Your task to perform on an android device: Open wifi settings Image 0: 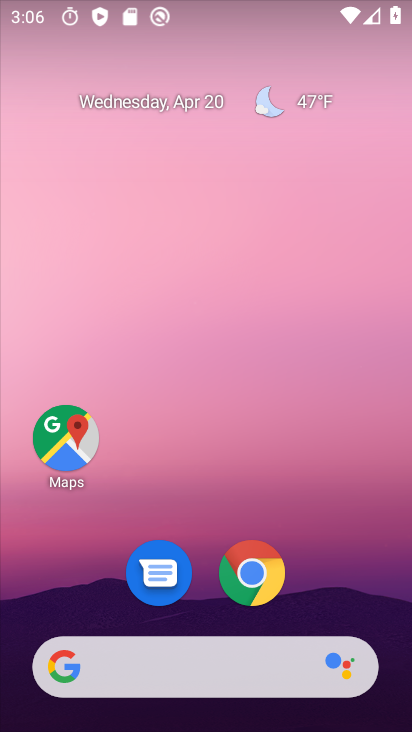
Step 0: drag from (204, 725) to (212, 153)
Your task to perform on an android device: Open wifi settings Image 1: 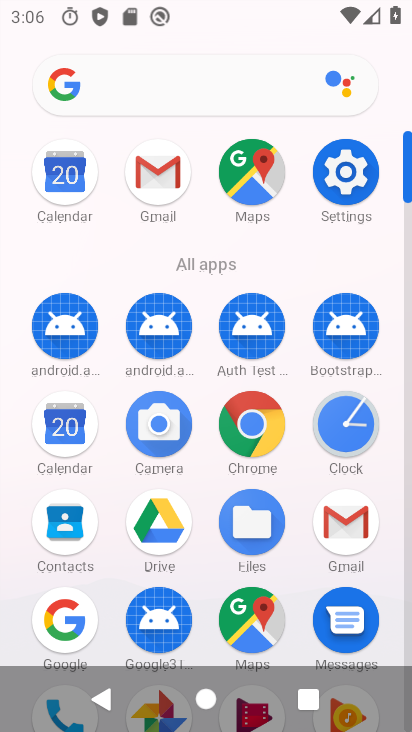
Step 1: click (348, 166)
Your task to perform on an android device: Open wifi settings Image 2: 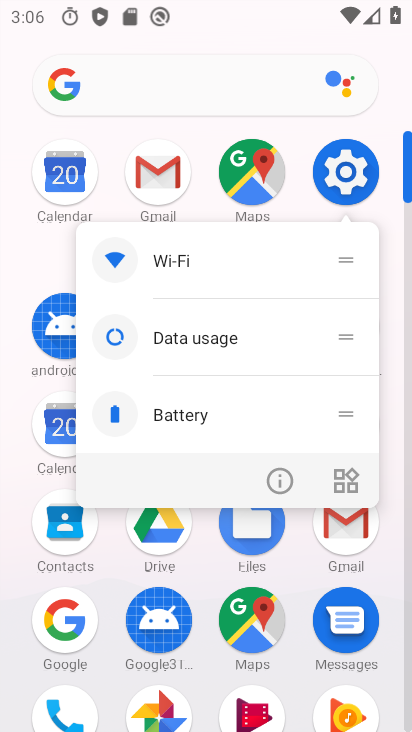
Step 2: click (346, 169)
Your task to perform on an android device: Open wifi settings Image 3: 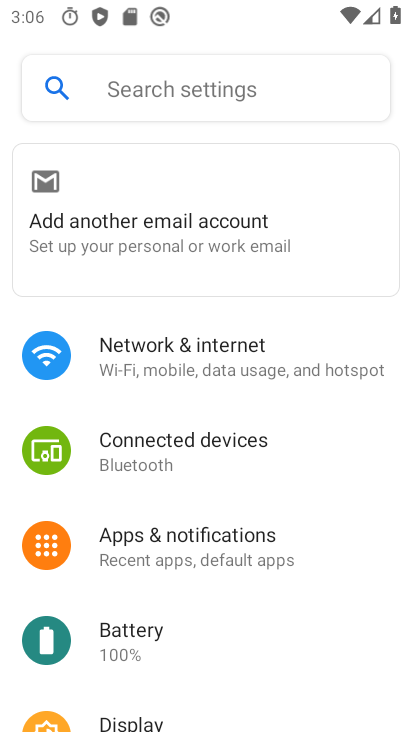
Step 3: click (183, 359)
Your task to perform on an android device: Open wifi settings Image 4: 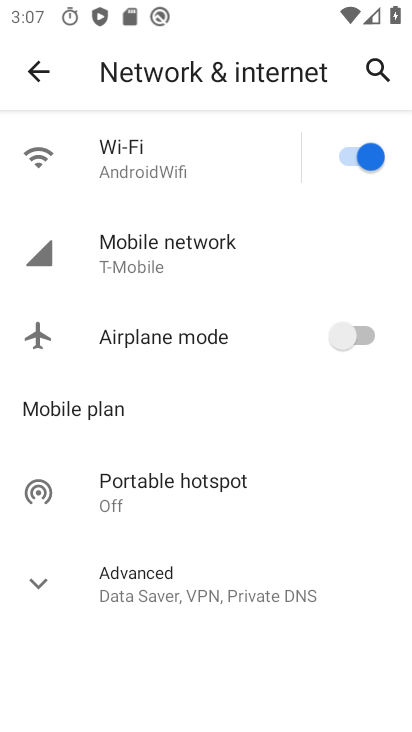
Step 4: click (148, 153)
Your task to perform on an android device: Open wifi settings Image 5: 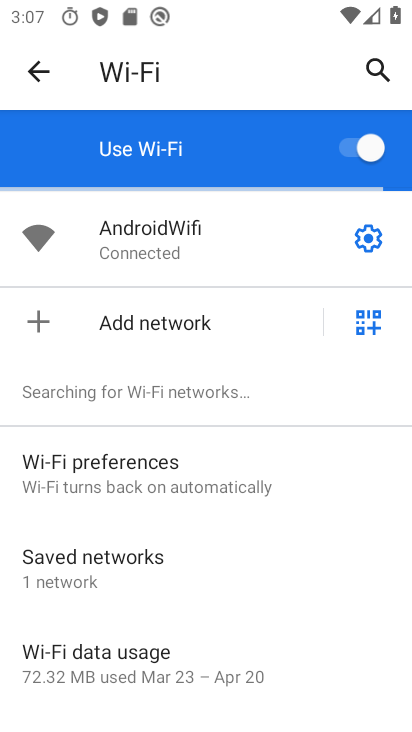
Step 5: click (368, 239)
Your task to perform on an android device: Open wifi settings Image 6: 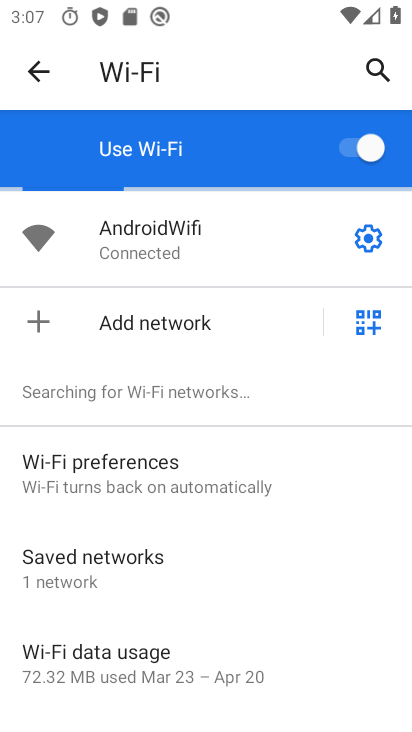
Step 6: click (359, 245)
Your task to perform on an android device: Open wifi settings Image 7: 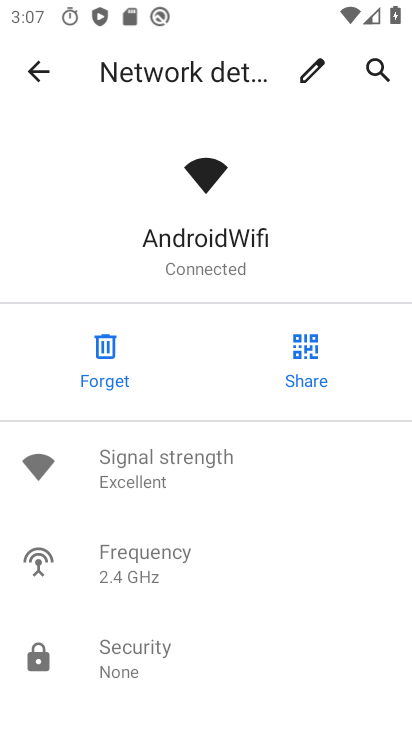
Step 7: task complete